Your task to perform on an android device: turn off javascript in the chrome app Image 0: 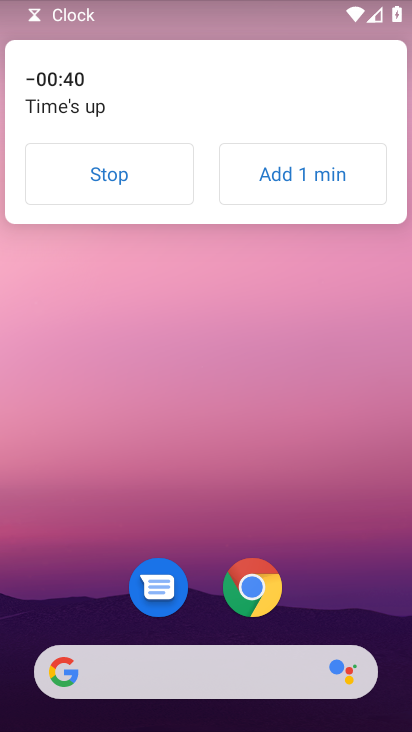
Step 0: click (108, 169)
Your task to perform on an android device: turn off javascript in the chrome app Image 1: 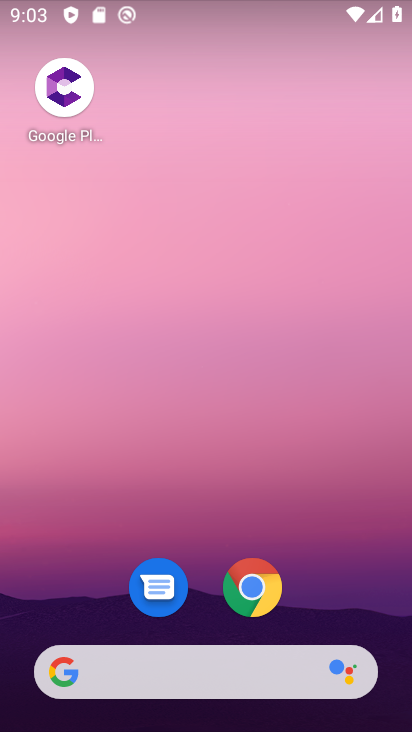
Step 1: click (254, 585)
Your task to perform on an android device: turn off javascript in the chrome app Image 2: 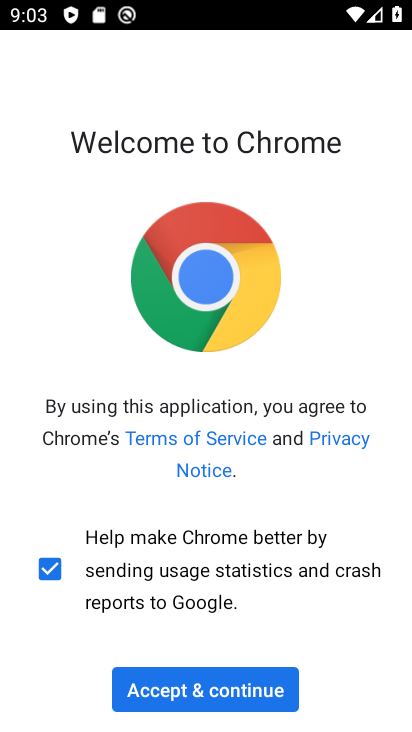
Step 2: click (194, 699)
Your task to perform on an android device: turn off javascript in the chrome app Image 3: 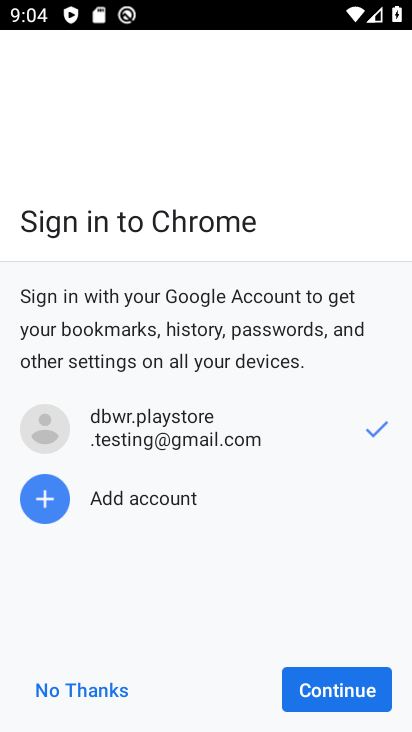
Step 3: click (359, 674)
Your task to perform on an android device: turn off javascript in the chrome app Image 4: 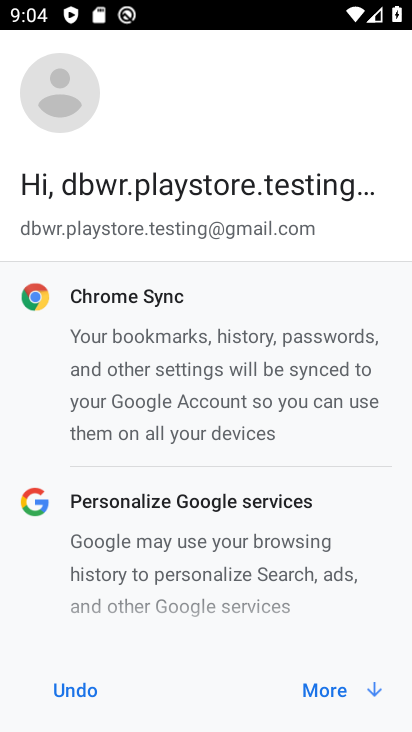
Step 4: click (359, 690)
Your task to perform on an android device: turn off javascript in the chrome app Image 5: 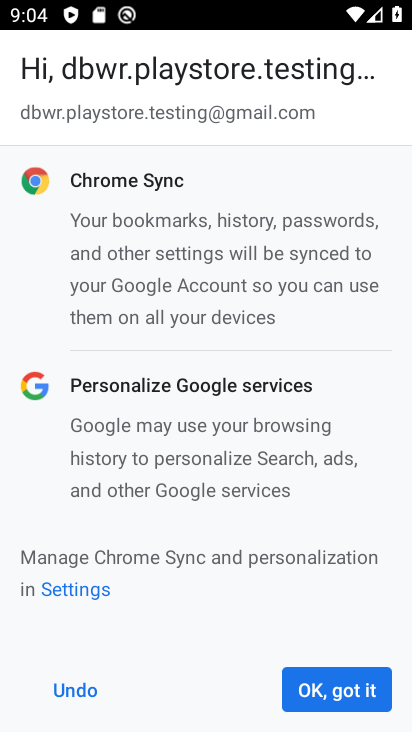
Step 5: click (359, 690)
Your task to perform on an android device: turn off javascript in the chrome app Image 6: 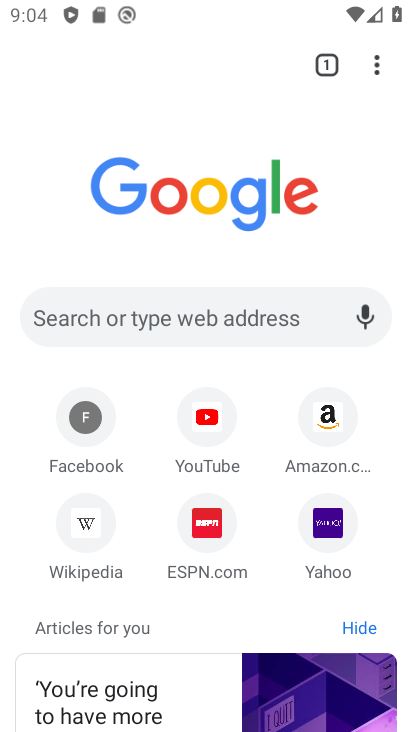
Step 6: click (392, 64)
Your task to perform on an android device: turn off javascript in the chrome app Image 7: 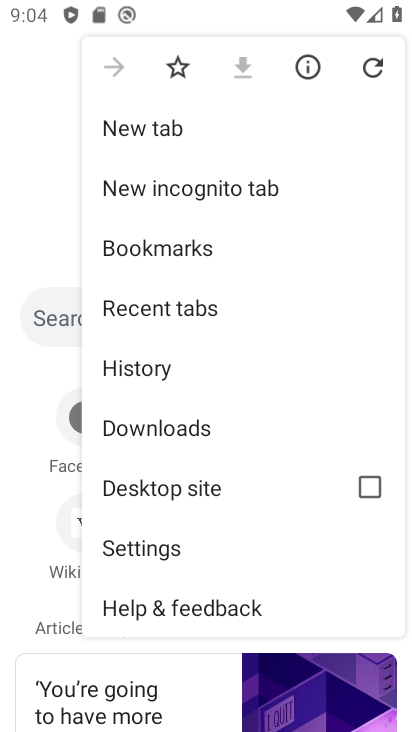
Step 7: click (174, 535)
Your task to perform on an android device: turn off javascript in the chrome app Image 8: 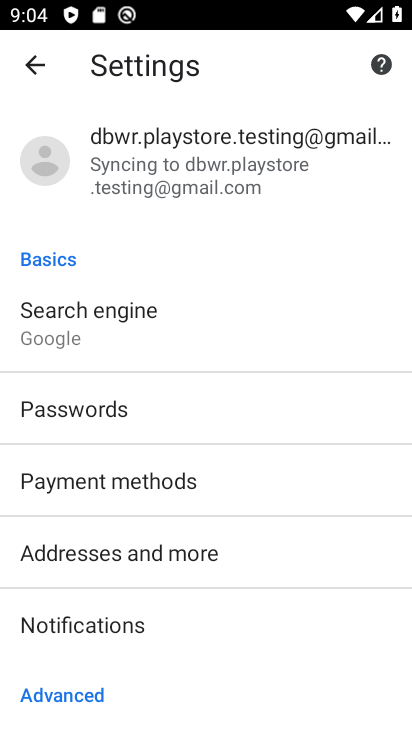
Step 8: drag from (110, 656) to (91, 318)
Your task to perform on an android device: turn off javascript in the chrome app Image 9: 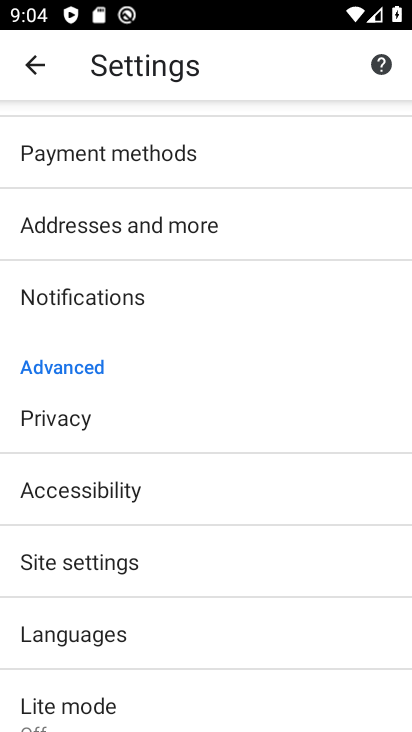
Step 9: click (119, 544)
Your task to perform on an android device: turn off javascript in the chrome app Image 10: 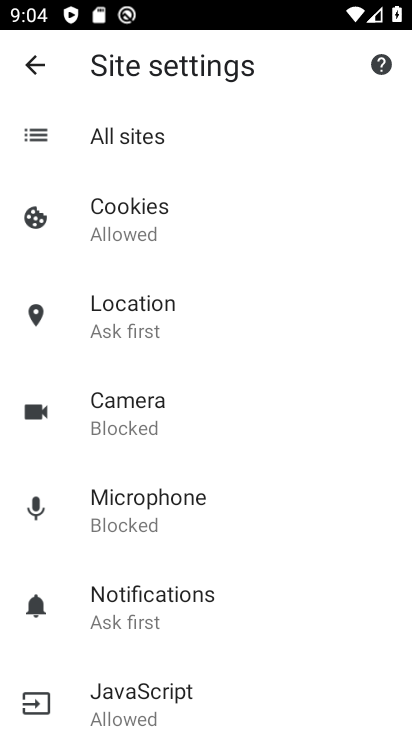
Step 10: click (168, 698)
Your task to perform on an android device: turn off javascript in the chrome app Image 11: 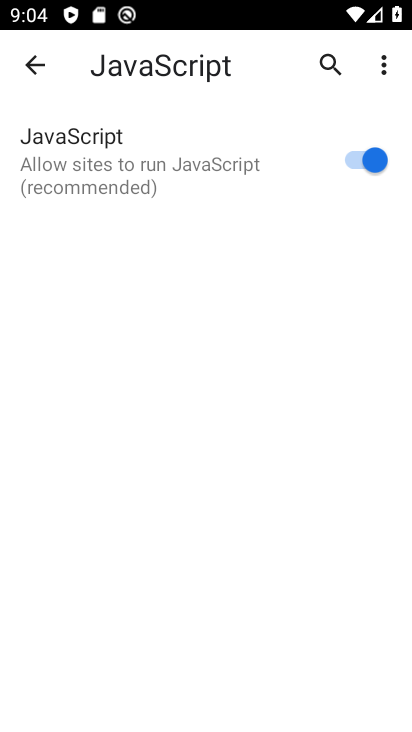
Step 11: click (362, 165)
Your task to perform on an android device: turn off javascript in the chrome app Image 12: 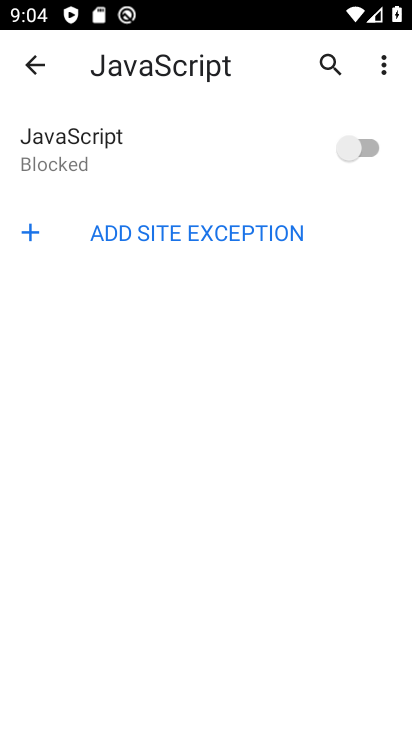
Step 12: task complete